Your task to perform on an android device: Empty the shopping cart on ebay. Add "razer deathadder" to the cart on ebay, then select checkout. Image 0: 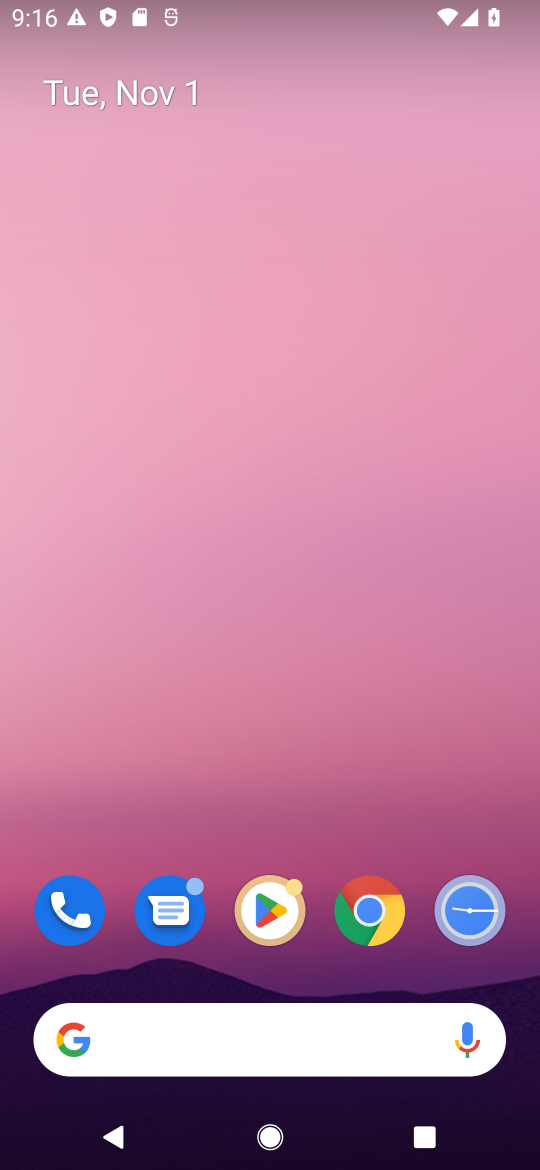
Step 0: click (369, 926)
Your task to perform on an android device: Empty the shopping cart on ebay. Add "razer deathadder" to the cart on ebay, then select checkout. Image 1: 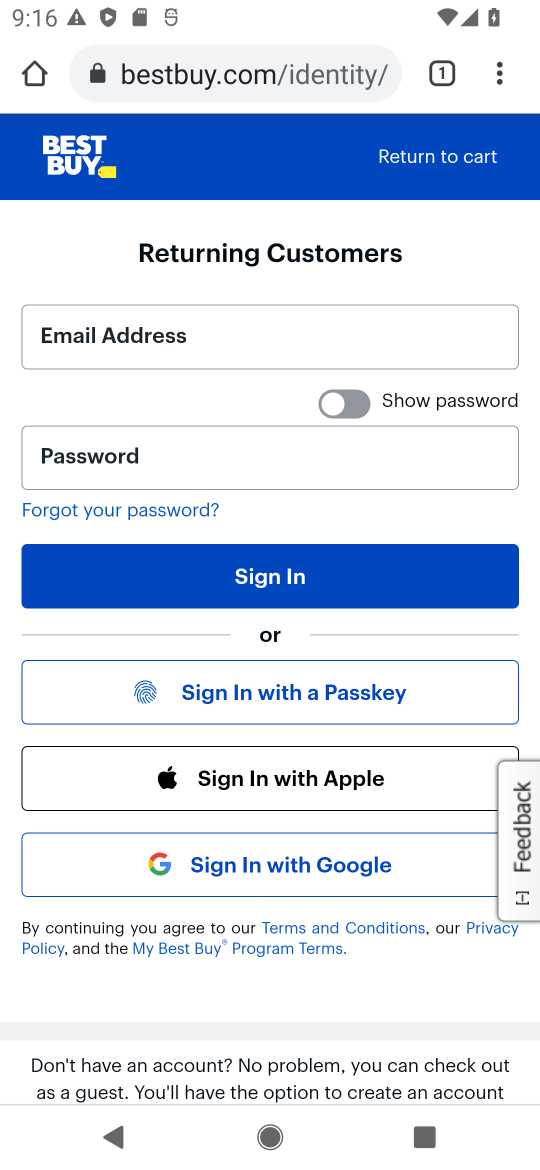
Step 1: click (280, 70)
Your task to perform on an android device: Empty the shopping cart on ebay. Add "razer deathadder" to the cart on ebay, then select checkout. Image 2: 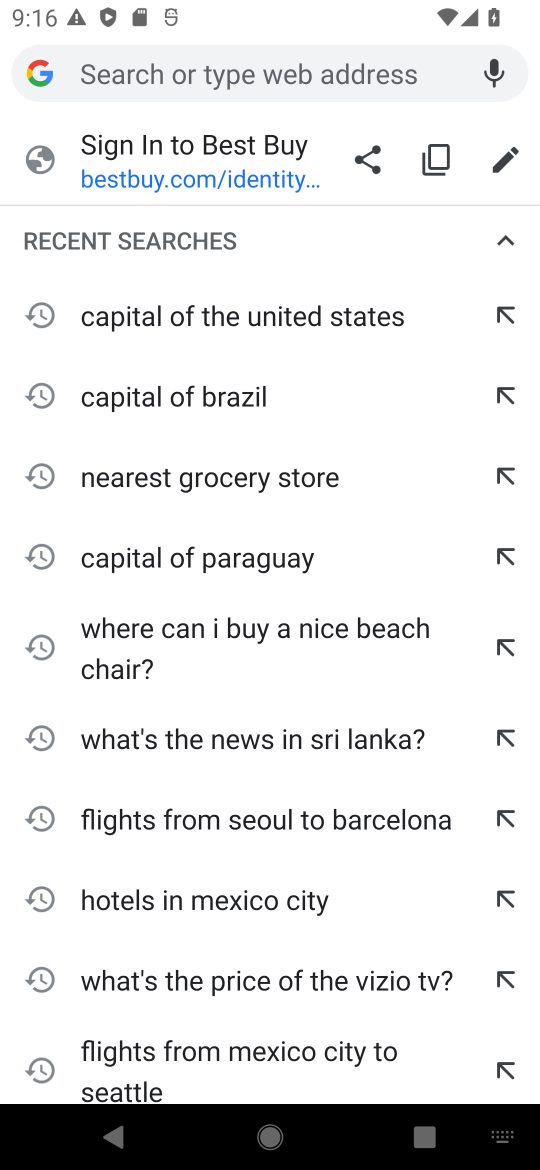
Step 2: type "ebay.com"
Your task to perform on an android device: Empty the shopping cart on ebay. Add "razer deathadder" to the cart on ebay, then select checkout. Image 3: 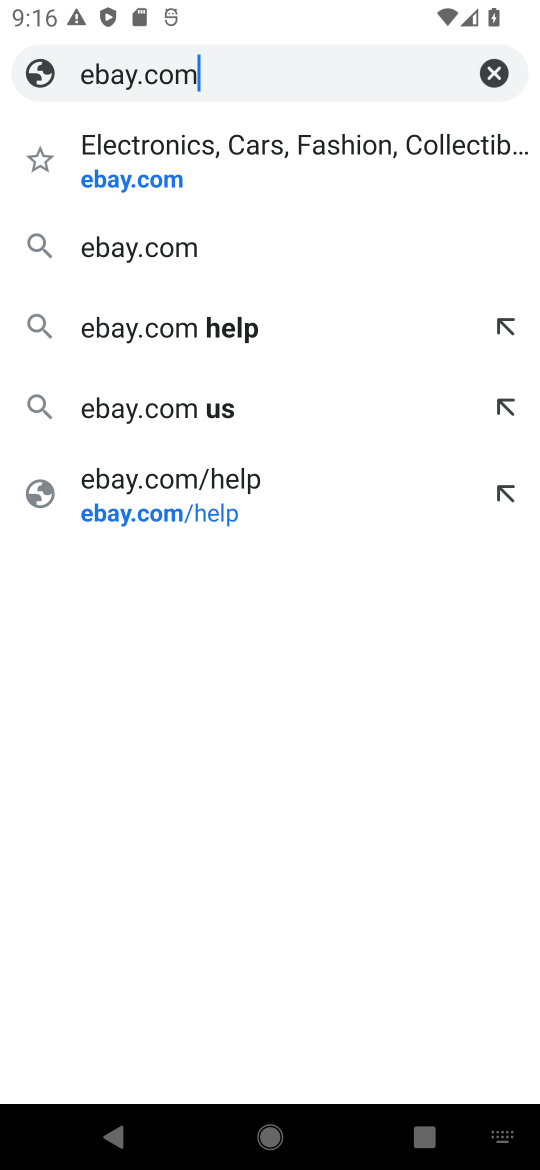
Step 3: click (114, 179)
Your task to perform on an android device: Empty the shopping cart on ebay. Add "razer deathadder" to the cart on ebay, then select checkout. Image 4: 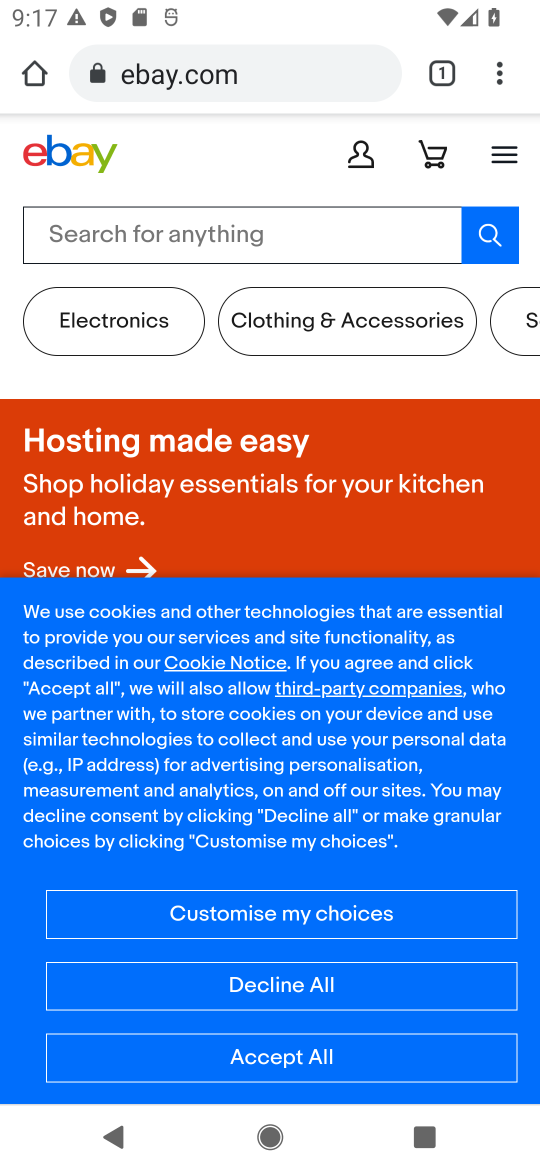
Step 4: click (431, 158)
Your task to perform on an android device: Empty the shopping cart on ebay. Add "razer deathadder" to the cart on ebay, then select checkout. Image 5: 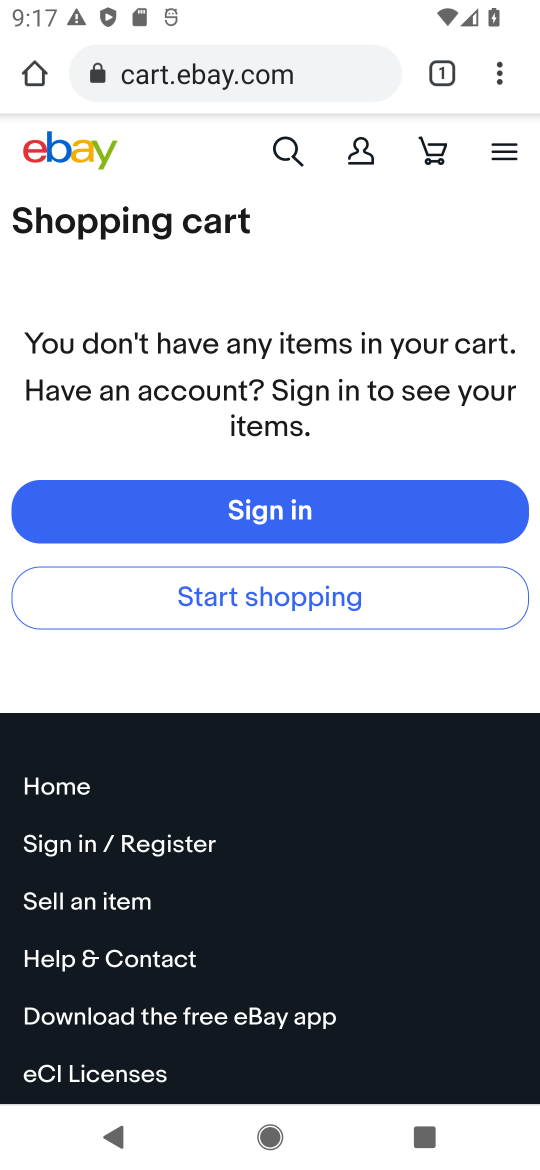
Step 5: click (278, 149)
Your task to perform on an android device: Empty the shopping cart on ebay. Add "razer deathadder" to the cart on ebay, then select checkout. Image 6: 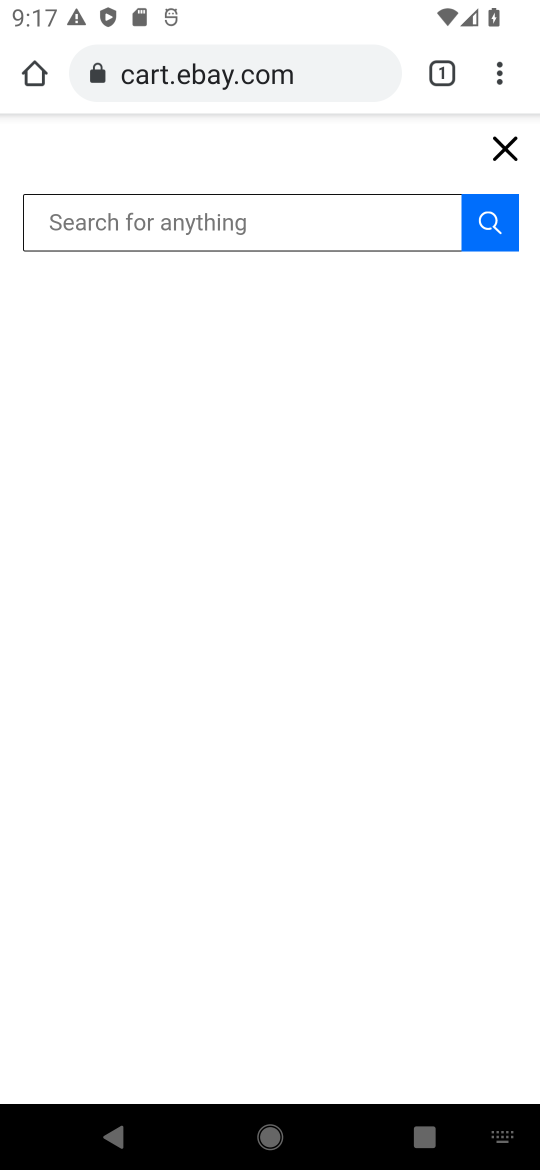
Step 6: click (231, 219)
Your task to perform on an android device: Empty the shopping cart on ebay. Add "razer deathadder" to the cart on ebay, then select checkout. Image 7: 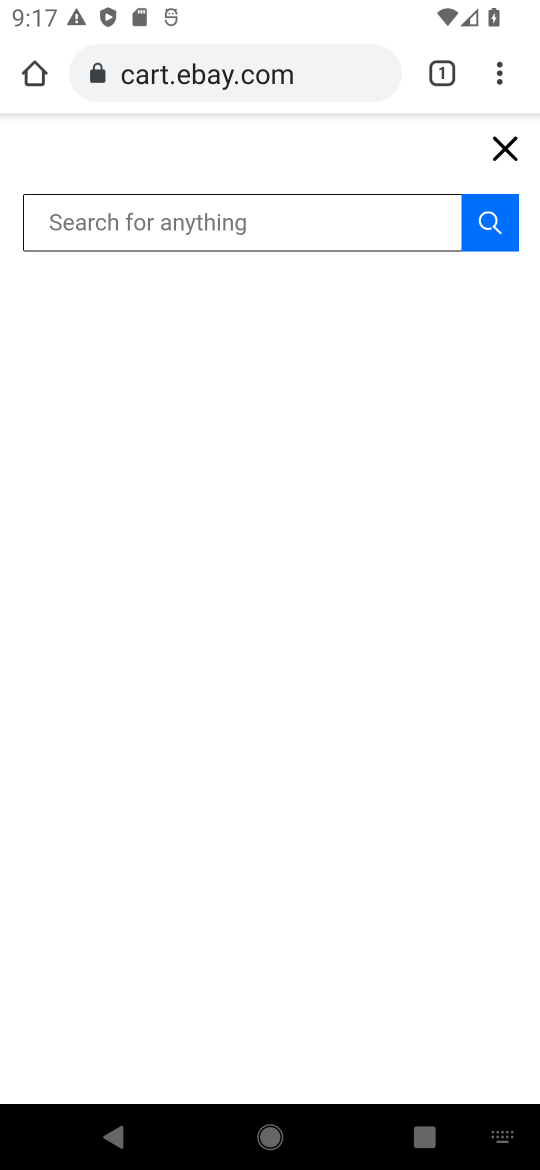
Step 7: type "razer deathadder"
Your task to perform on an android device: Empty the shopping cart on ebay. Add "razer deathadder" to the cart on ebay, then select checkout. Image 8: 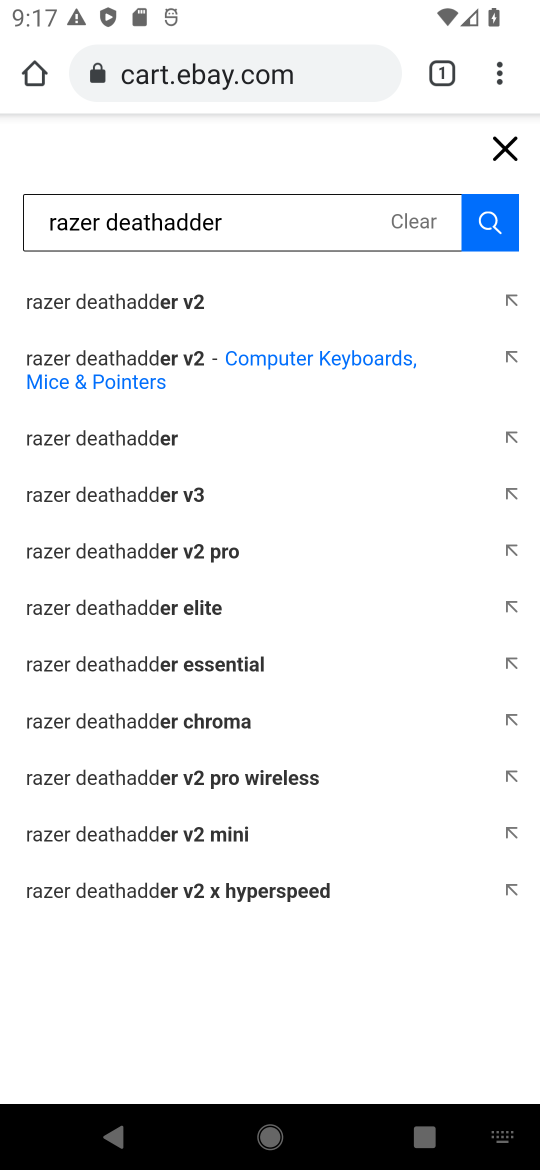
Step 8: click (158, 437)
Your task to perform on an android device: Empty the shopping cart on ebay. Add "razer deathadder" to the cart on ebay, then select checkout. Image 9: 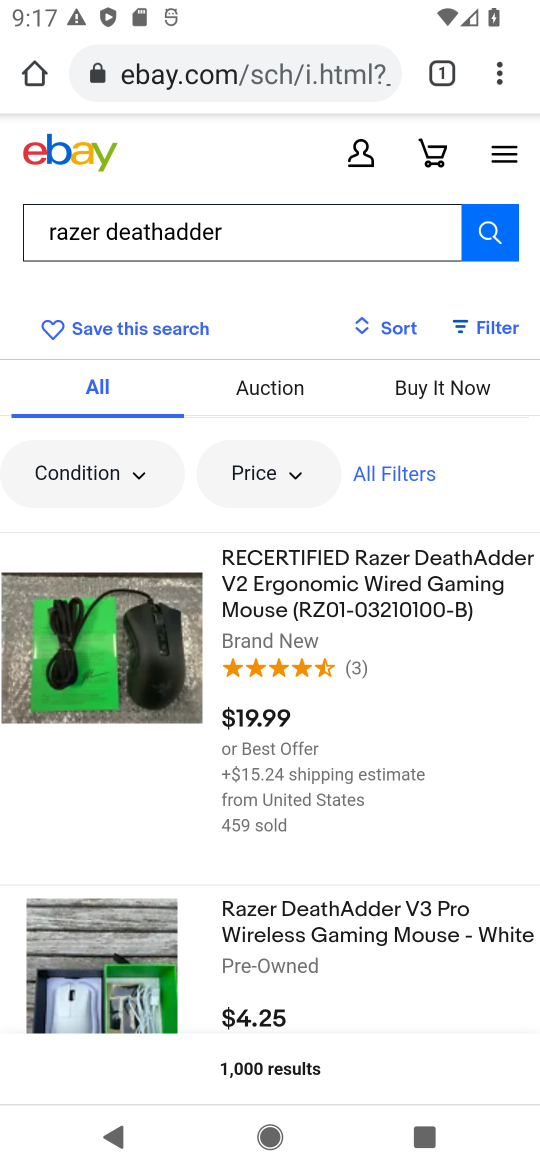
Step 9: click (234, 648)
Your task to perform on an android device: Empty the shopping cart on ebay. Add "razer deathadder" to the cart on ebay, then select checkout. Image 10: 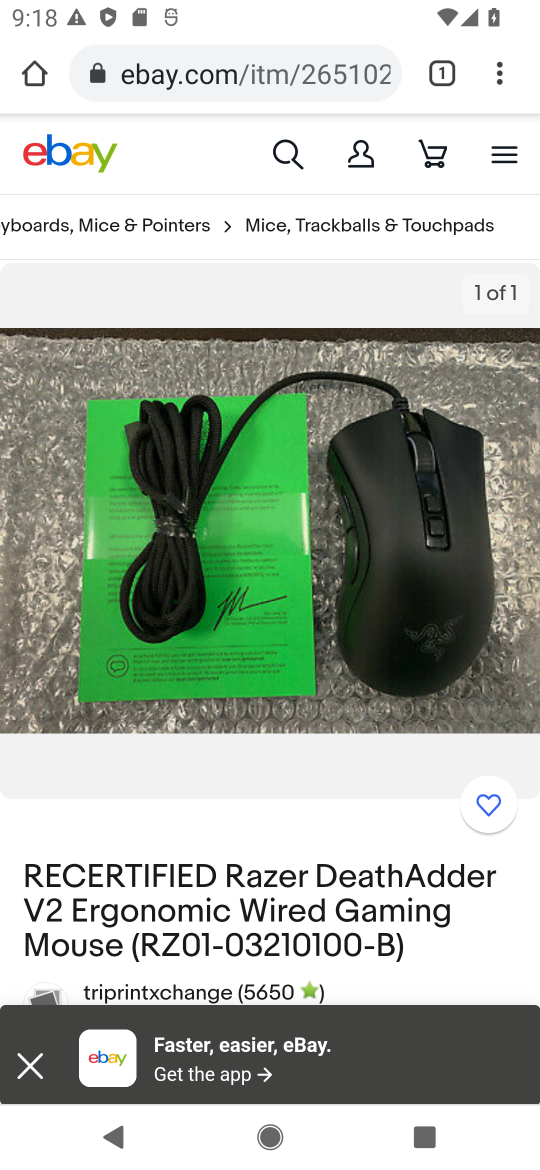
Step 10: drag from (246, 761) to (261, 394)
Your task to perform on an android device: Empty the shopping cart on ebay. Add "razer deathadder" to the cart on ebay, then select checkout. Image 11: 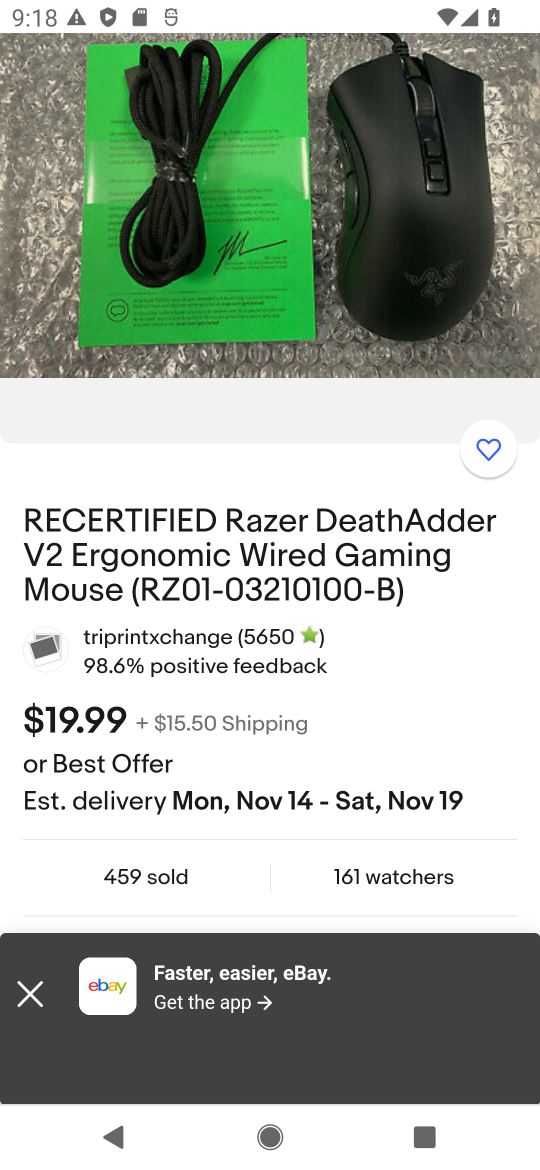
Step 11: drag from (278, 775) to (302, 454)
Your task to perform on an android device: Empty the shopping cart on ebay. Add "razer deathadder" to the cart on ebay, then select checkout. Image 12: 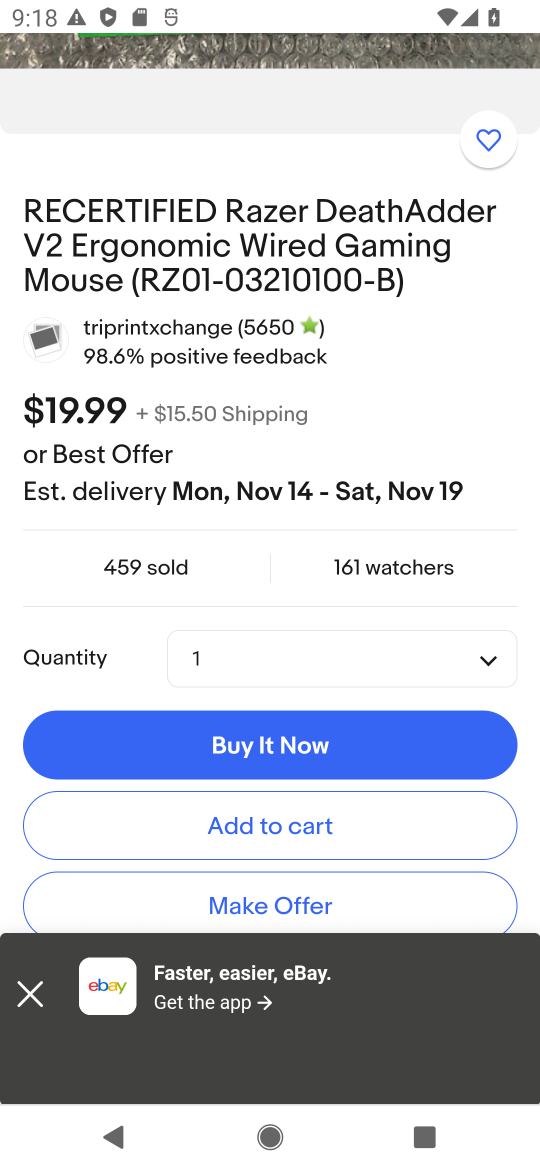
Step 12: click (266, 820)
Your task to perform on an android device: Empty the shopping cart on ebay. Add "razer deathadder" to the cart on ebay, then select checkout. Image 13: 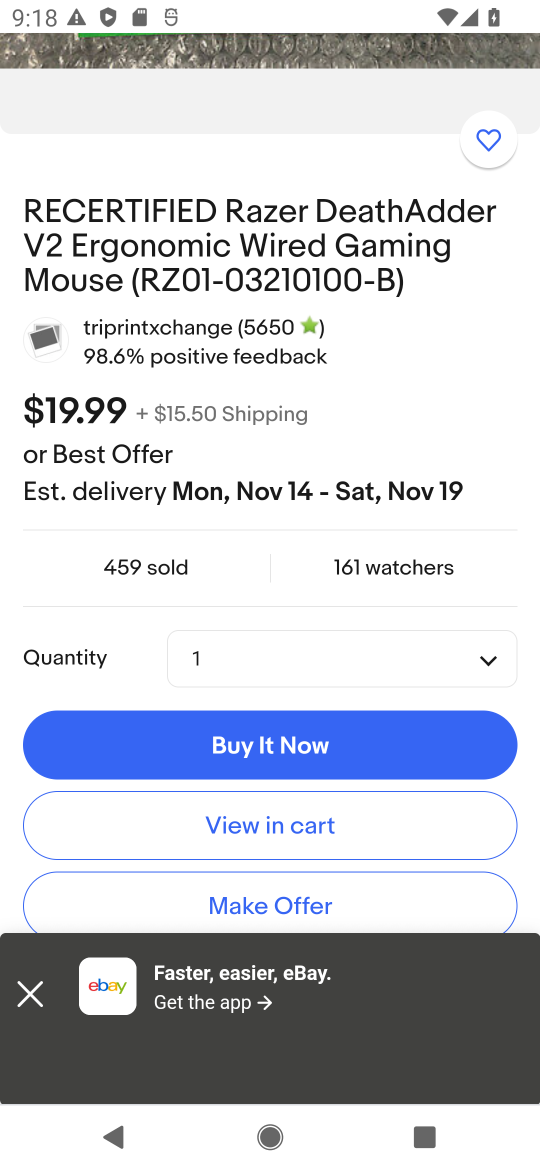
Step 13: click (266, 820)
Your task to perform on an android device: Empty the shopping cart on ebay. Add "razer deathadder" to the cart on ebay, then select checkout. Image 14: 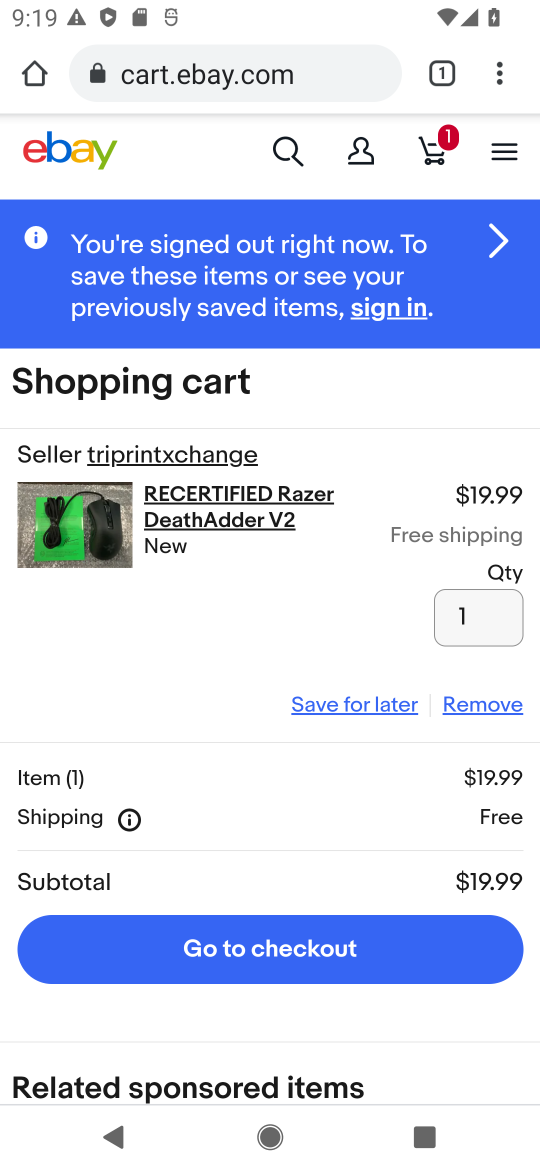
Step 14: click (232, 954)
Your task to perform on an android device: Empty the shopping cart on ebay. Add "razer deathadder" to the cart on ebay, then select checkout. Image 15: 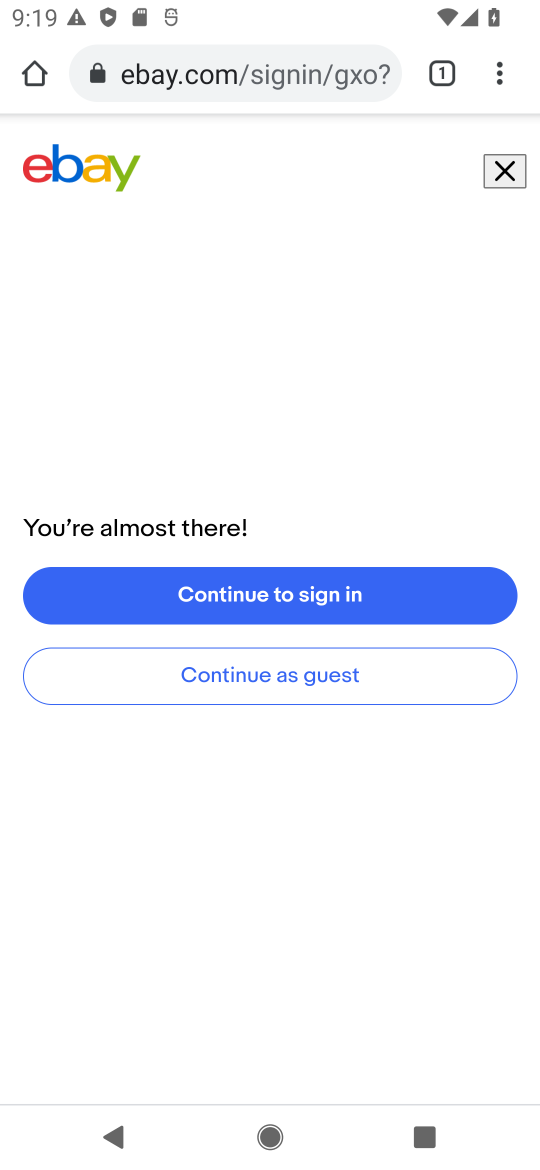
Step 15: task complete